Your task to perform on an android device: Open the web browser Image 0: 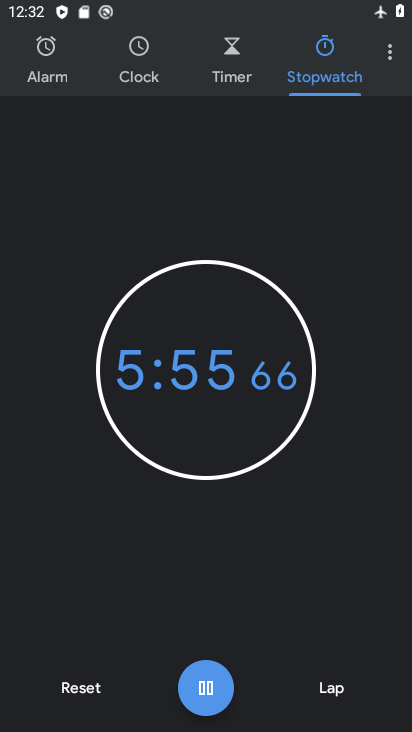
Step 0: press home button
Your task to perform on an android device: Open the web browser Image 1: 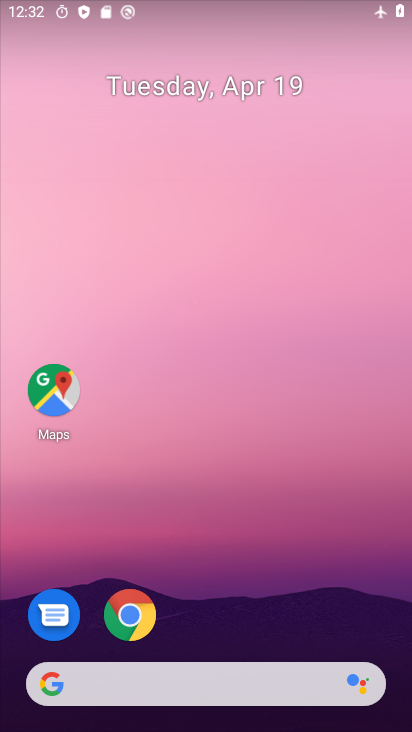
Step 1: drag from (370, 597) to (380, 81)
Your task to perform on an android device: Open the web browser Image 2: 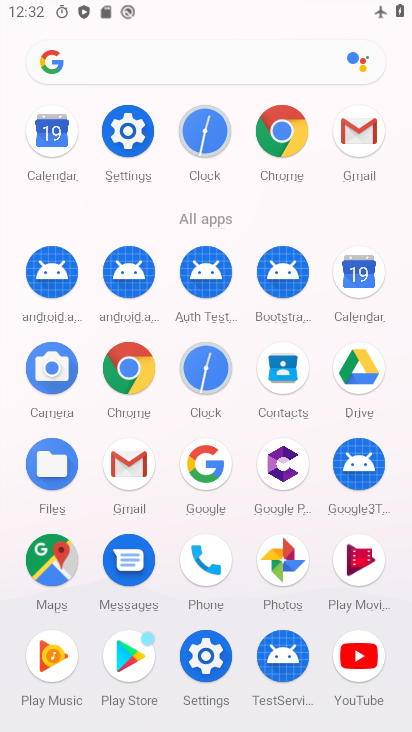
Step 2: click (134, 375)
Your task to perform on an android device: Open the web browser Image 3: 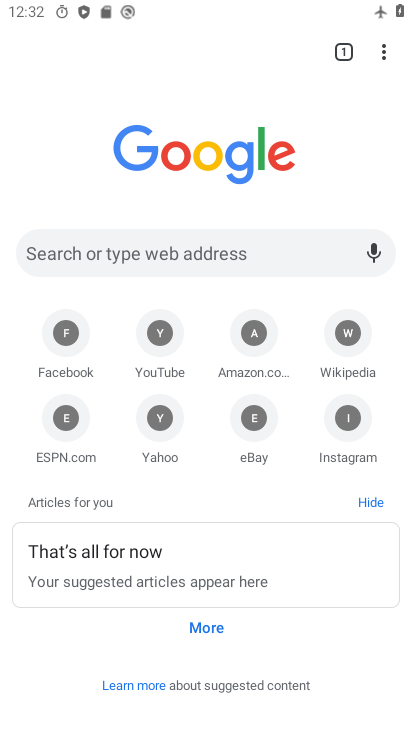
Step 3: task complete